Your task to perform on an android device: Search for Mexican restaurants on Maps Image 0: 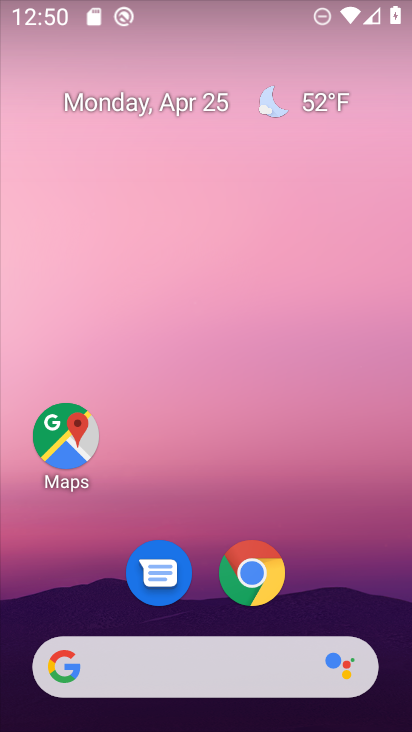
Step 0: drag from (213, 720) to (188, 146)
Your task to perform on an android device: Search for Mexican restaurants on Maps Image 1: 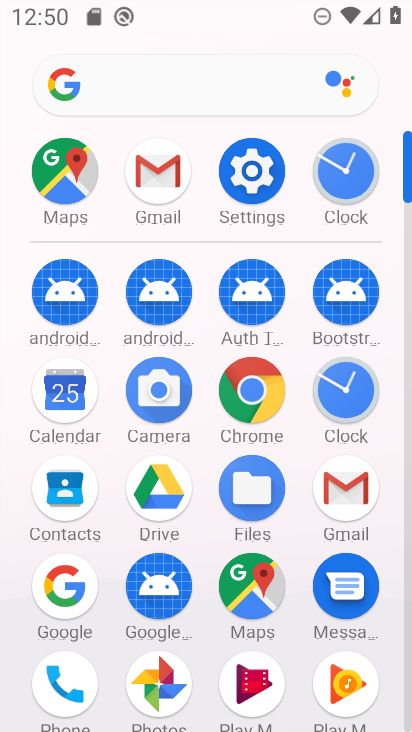
Step 1: click (250, 587)
Your task to perform on an android device: Search for Mexican restaurants on Maps Image 2: 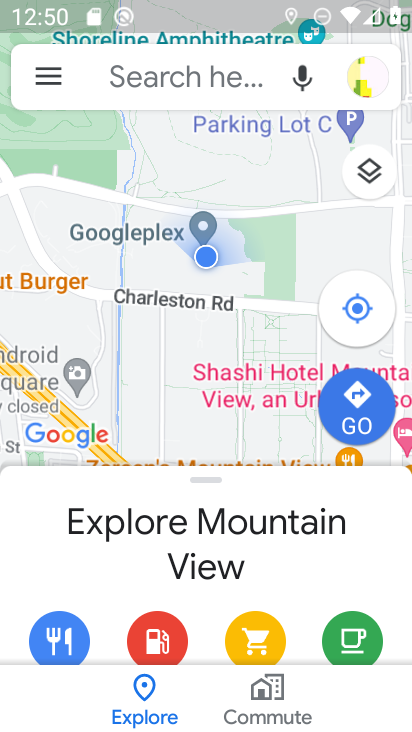
Step 2: click (160, 86)
Your task to perform on an android device: Search for Mexican restaurants on Maps Image 3: 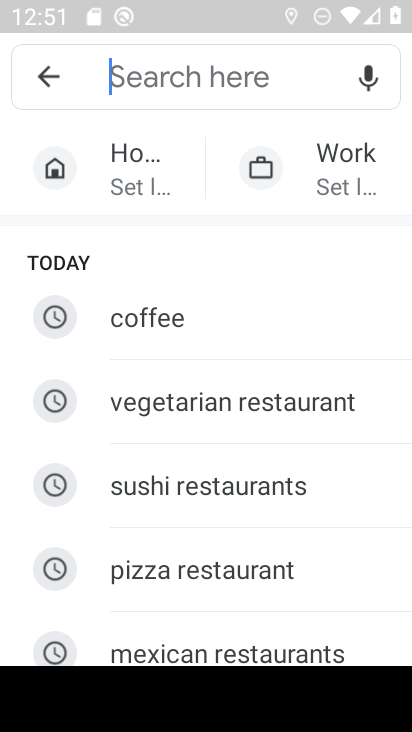
Step 3: type "Mexican restaurants"
Your task to perform on an android device: Search for Mexican restaurants on Maps Image 4: 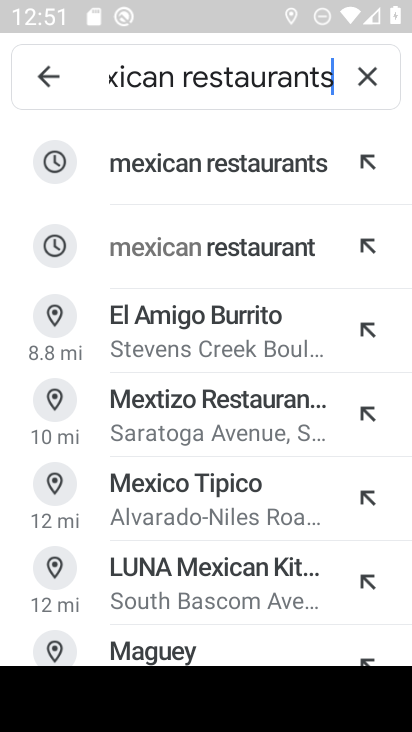
Step 4: click (205, 165)
Your task to perform on an android device: Search for Mexican restaurants on Maps Image 5: 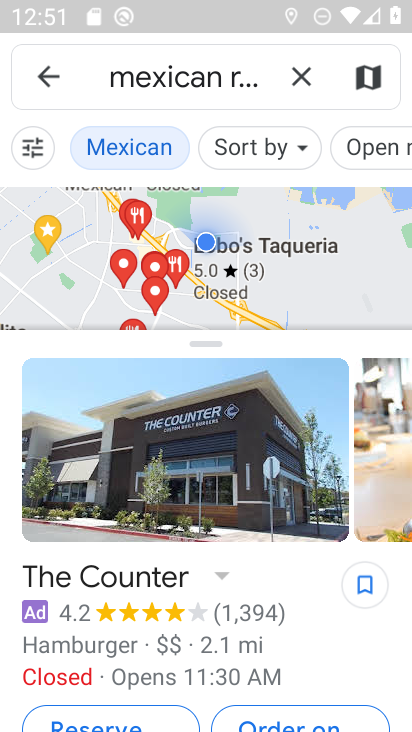
Step 5: task complete